Your task to perform on an android device: Open Amazon Image 0: 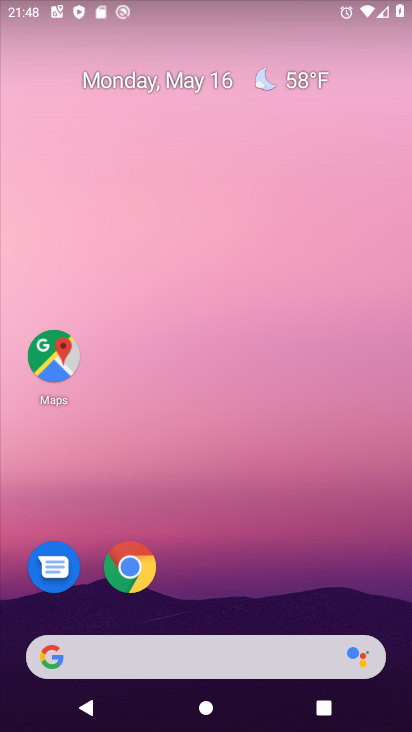
Step 0: drag from (272, 577) to (275, 212)
Your task to perform on an android device: Open Amazon Image 1: 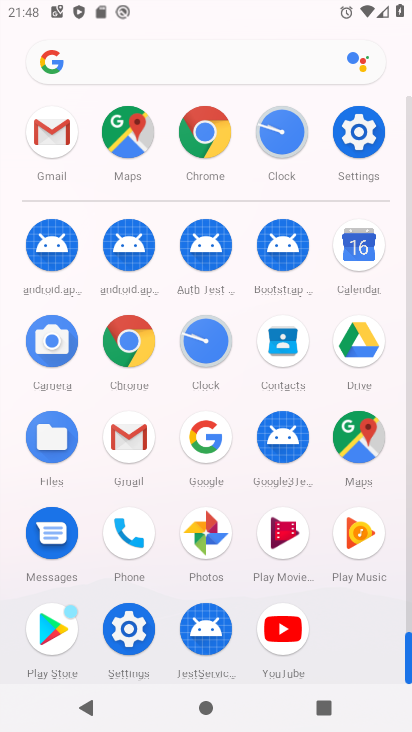
Step 1: click (134, 335)
Your task to perform on an android device: Open Amazon Image 2: 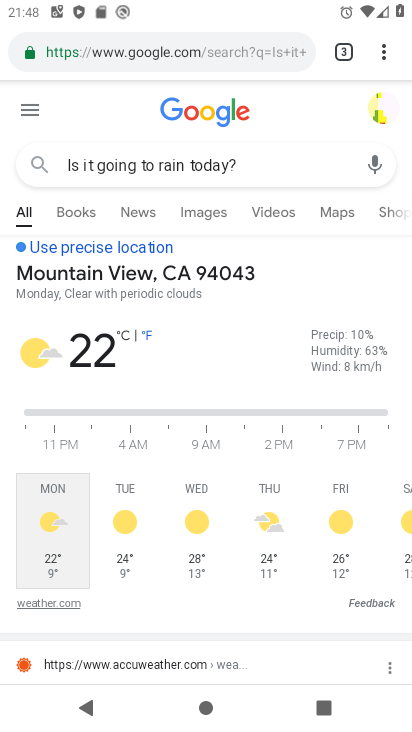
Step 2: click (373, 41)
Your task to perform on an android device: Open Amazon Image 3: 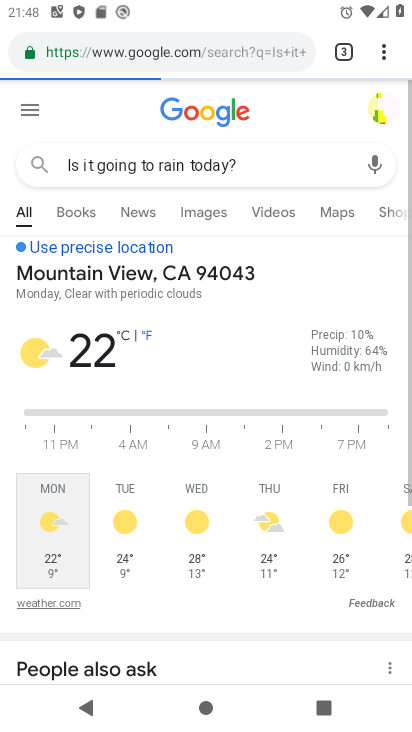
Step 3: click (375, 49)
Your task to perform on an android device: Open Amazon Image 4: 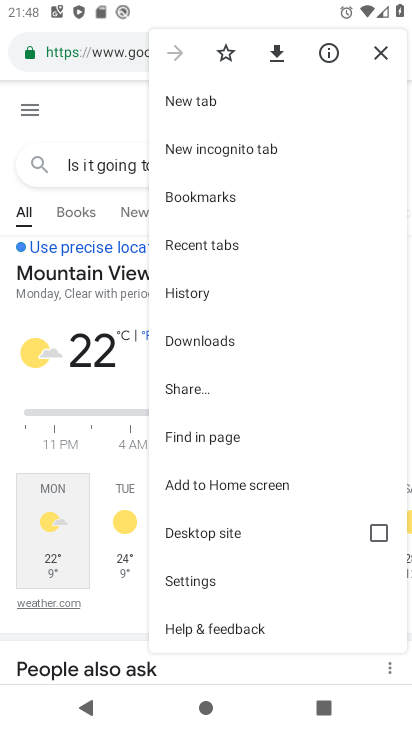
Step 4: click (191, 109)
Your task to perform on an android device: Open Amazon Image 5: 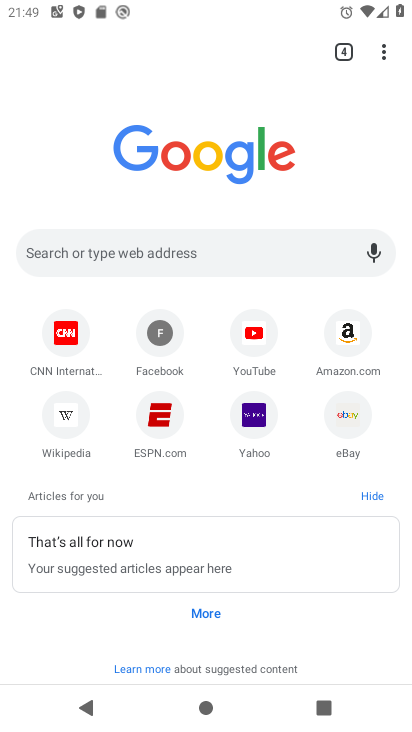
Step 5: click (330, 336)
Your task to perform on an android device: Open Amazon Image 6: 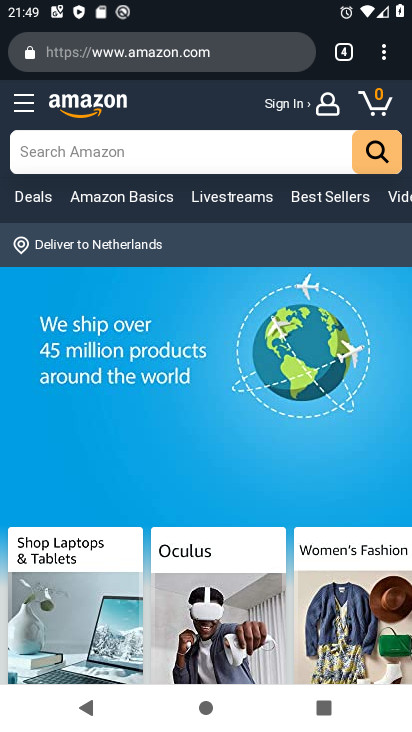
Step 6: task complete